Your task to perform on an android device: toggle pop-ups in chrome Image 0: 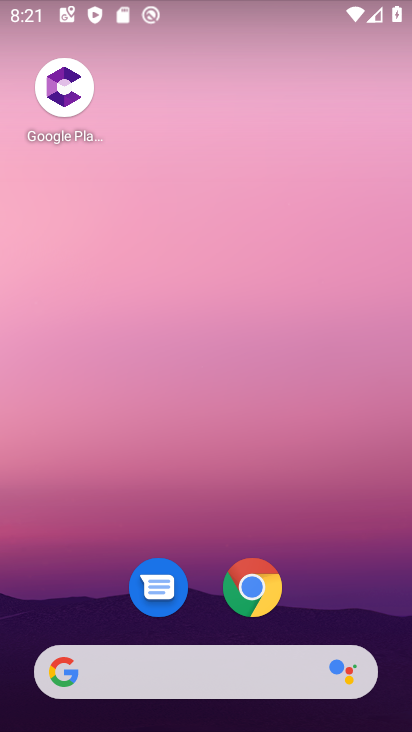
Step 0: click (259, 589)
Your task to perform on an android device: toggle pop-ups in chrome Image 1: 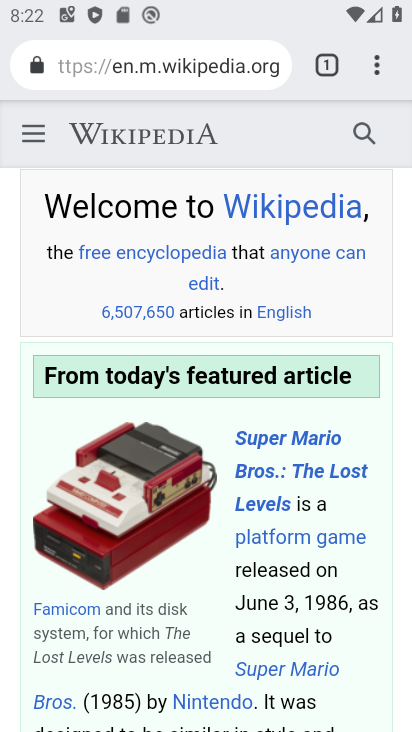
Step 1: click (381, 58)
Your task to perform on an android device: toggle pop-ups in chrome Image 2: 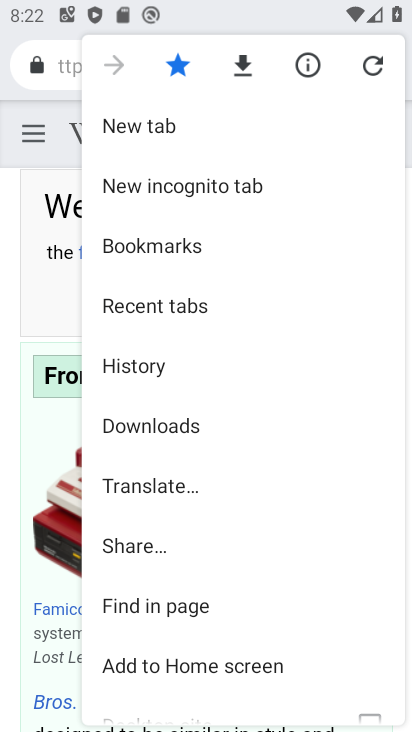
Step 2: drag from (182, 627) to (242, 64)
Your task to perform on an android device: toggle pop-ups in chrome Image 3: 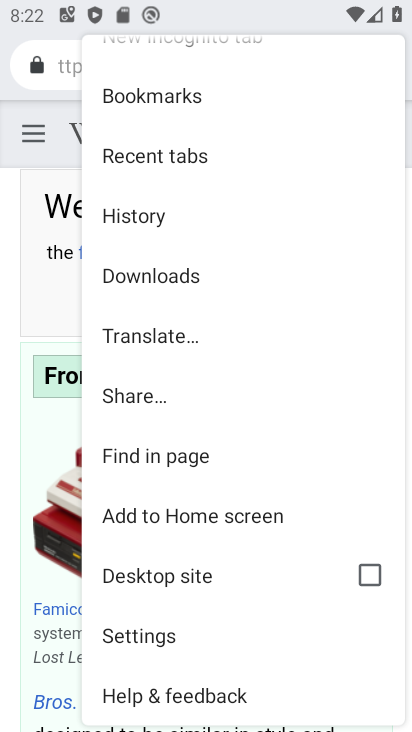
Step 3: click (162, 639)
Your task to perform on an android device: toggle pop-ups in chrome Image 4: 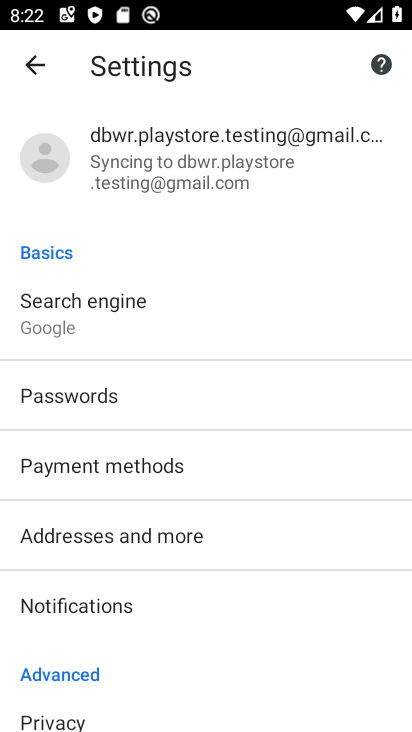
Step 4: drag from (162, 639) to (216, 267)
Your task to perform on an android device: toggle pop-ups in chrome Image 5: 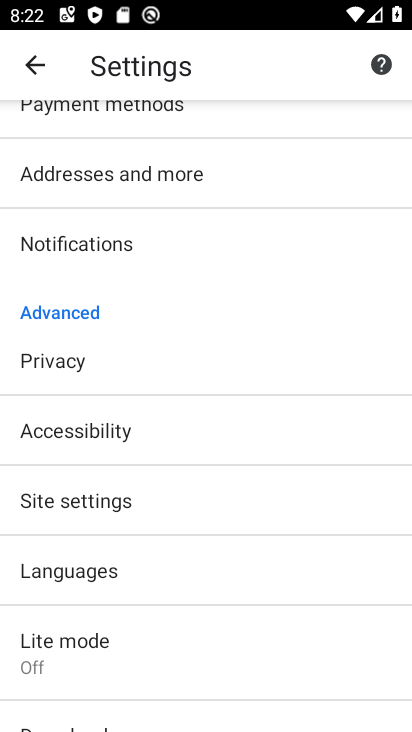
Step 5: drag from (115, 598) to (162, 304)
Your task to perform on an android device: toggle pop-ups in chrome Image 6: 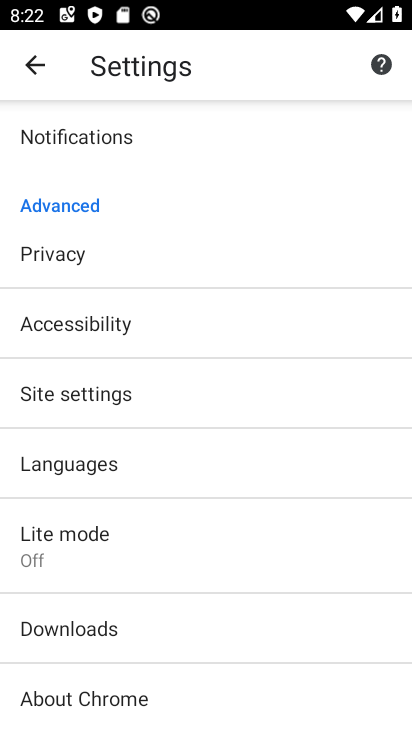
Step 6: click (95, 406)
Your task to perform on an android device: toggle pop-ups in chrome Image 7: 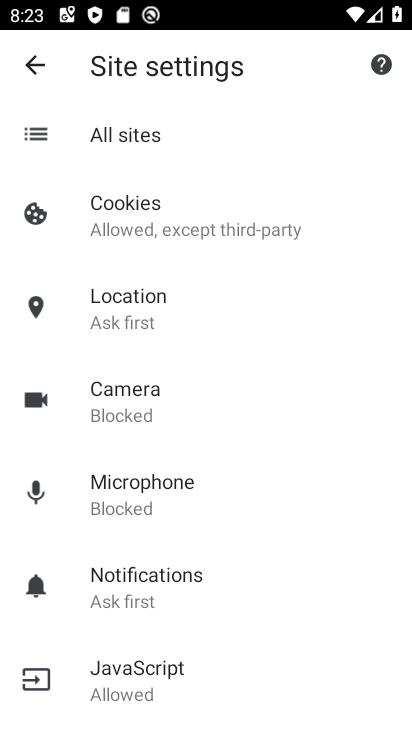
Step 7: drag from (174, 673) to (192, 278)
Your task to perform on an android device: toggle pop-ups in chrome Image 8: 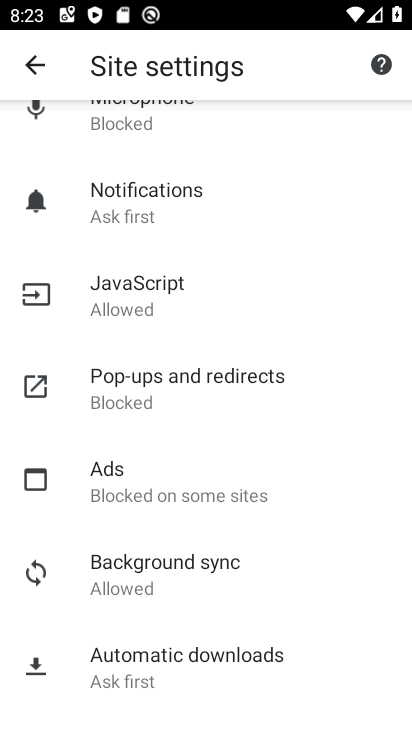
Step 8: drag from (227, 664) to (242, 519)
Your task to perform on an android device: toggle pop-ups in chrome Image 9: 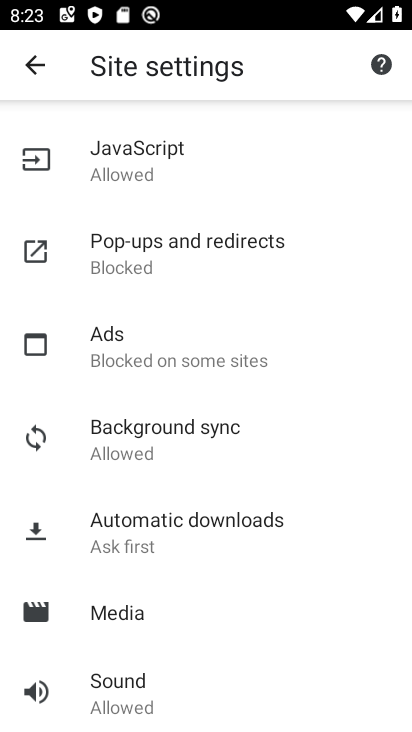
Step 9: click (169, 248)
Your task to perform on an android device: toggle pop-ups in chrome Image 10: 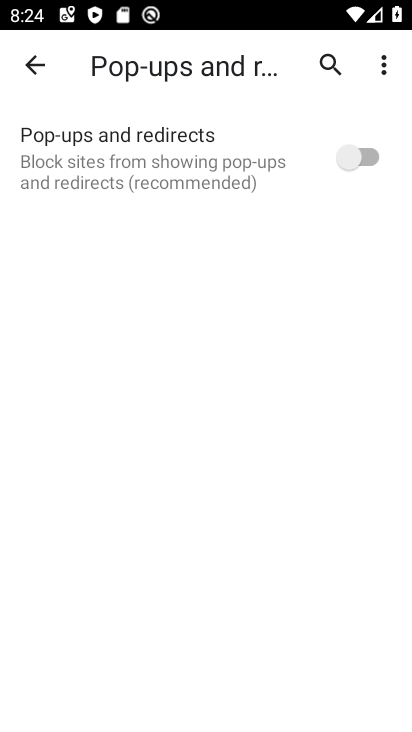
Step 10: click (365, 155)
Your task to perform on an android device: toggle pop-ups in chrome Image 11: 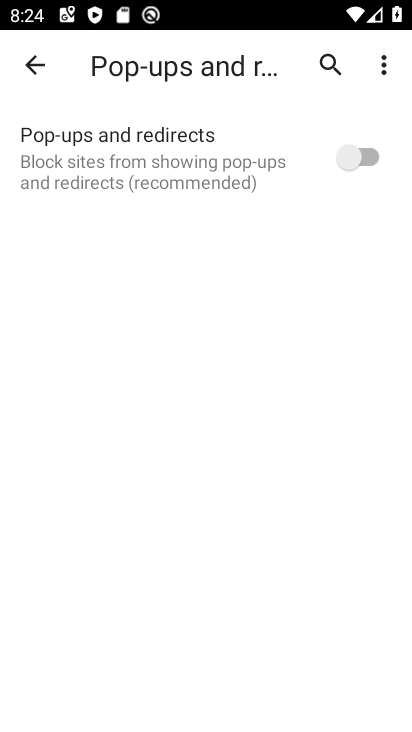
Step 11: click (365, 155)
Your task to perform on an android device: toggle pop-ups in chrome Image 12: 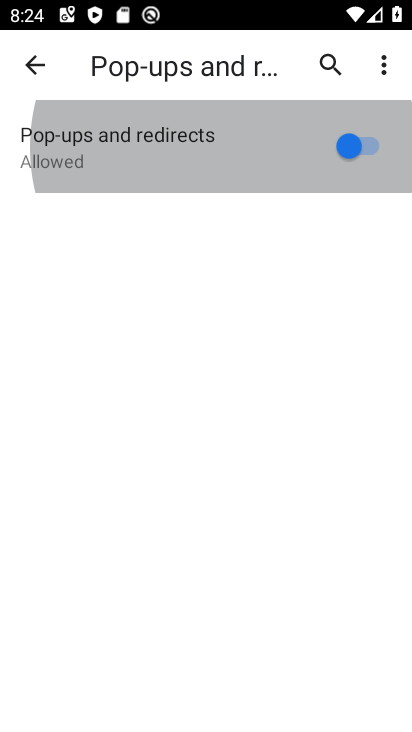
Step 12: click (365, 155)
Your task to perform on an android device: toggle pop-ups in chrome Image 13: 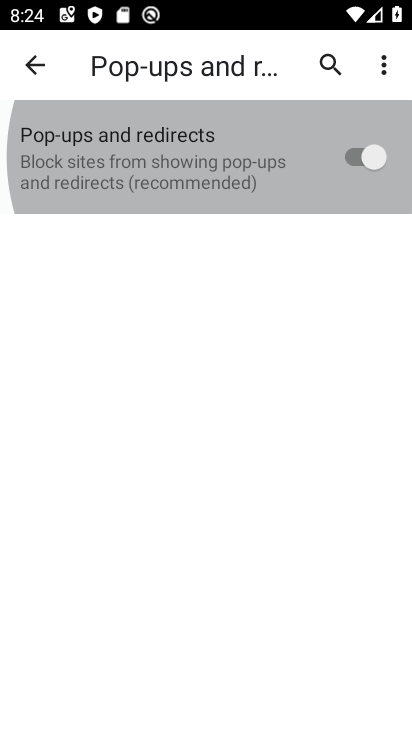
Step 13: click (365, 155)
Your task to perform on an android device: toggle pop-ups in chrome Image 14: 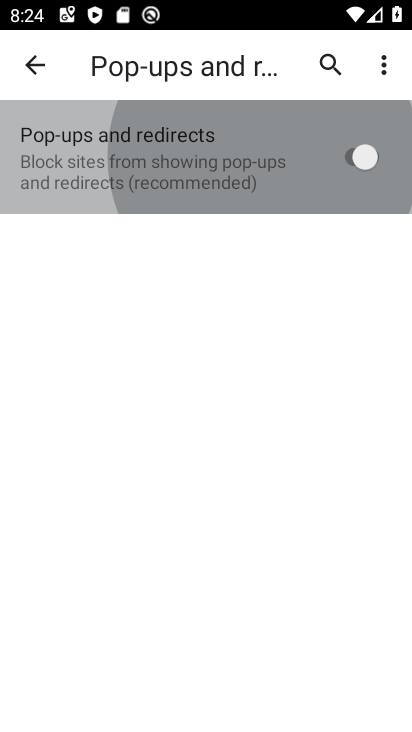
Step 14: click (365, 155)
Your task to perform on an android device: toggle pop-ups in chrome Image 15: 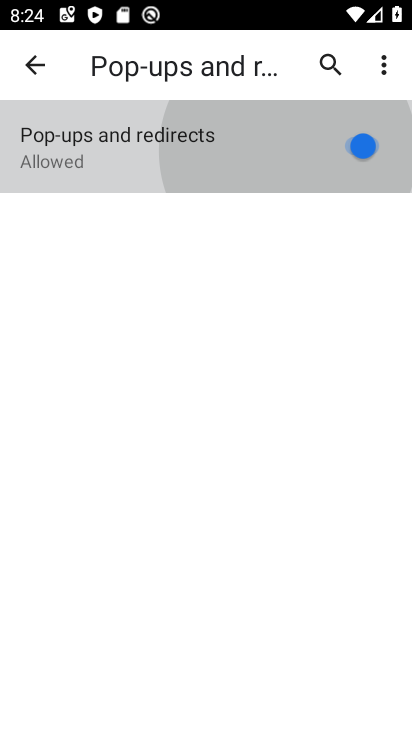
Step 15: click (365, 155)
Your task to perform on an android device: toggle pop-ups in chrome Image 16: 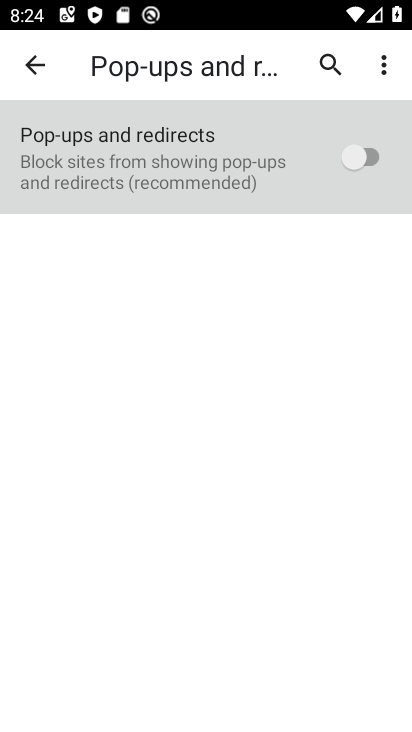
Step 16: click (365, 155)
Your task to perform on an android device: toggle pop-ups in chrome Image 17: 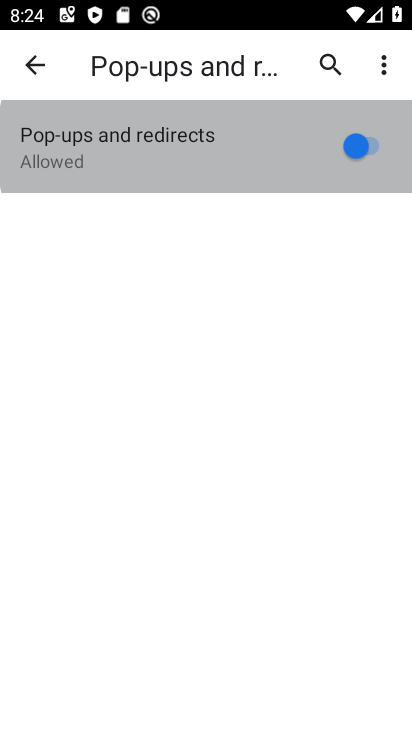
Step 17: click (365, 155)
Your task to perform on an android device: toggle pop-ups in chrome Image 18: 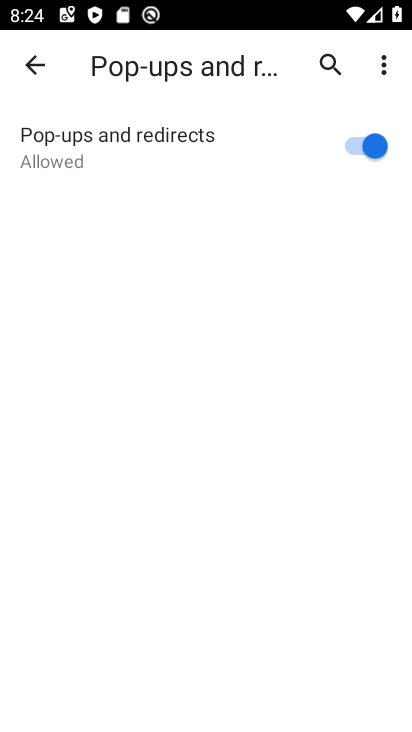
Step 18: task complete